Your task to perform on an android device: Open calendar and show me the second week of next month Image 0: 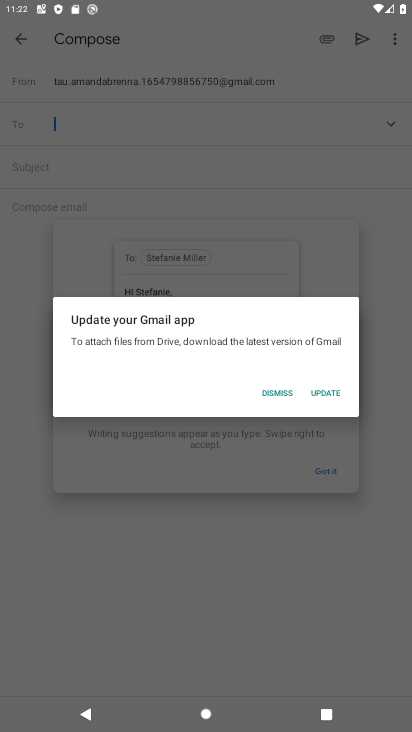
Step 0: press home button
Your task to perform on an android device: Open calendar and show me the second week of next month Image 1: 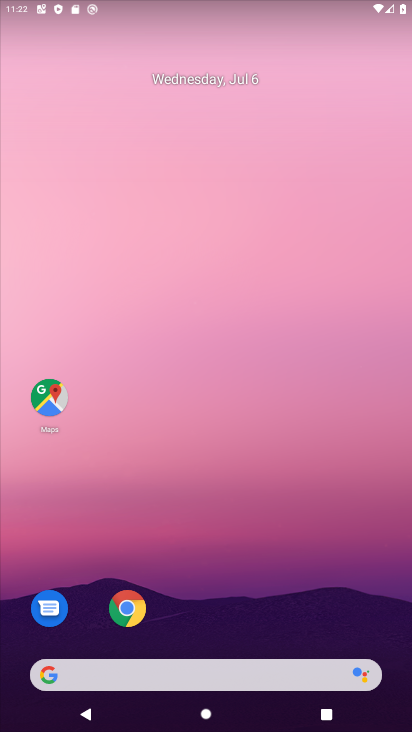
Step 1: drag from (335, 592) to (364, 91)
Your task to perform on an android device: Open calendar and show me the second week of next month Image 2: 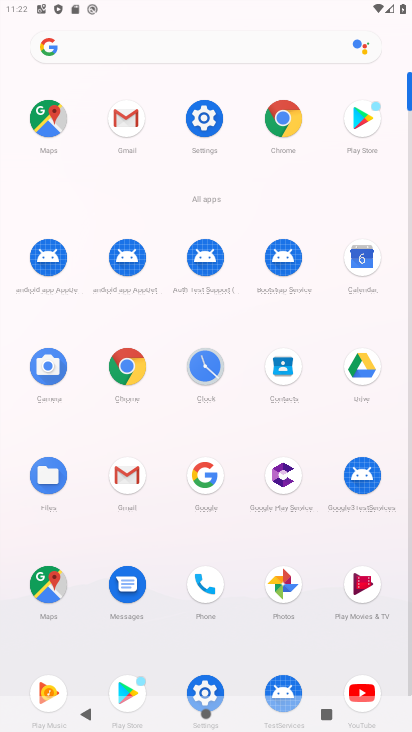
Step 2: click (367, 257)
Your task to perform on an android device: Open calendar and show me the second week of next month Image 3: 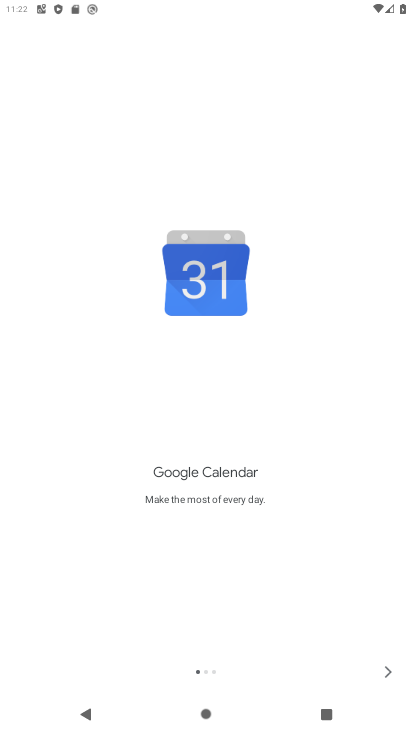
Step 3: click (388, 665)
Your task to perform on an android device: Open calendar and show me the second week of next month Image 4: 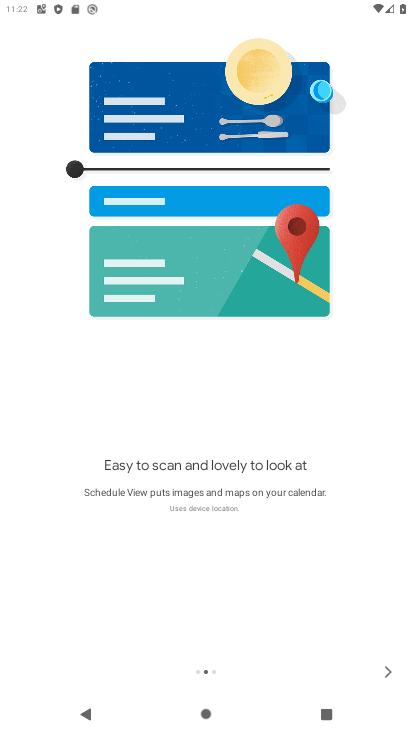
Step 4: click (388, 665)
Your task to perform on an android device: Open calendar and show me the second week of next month Image 5: 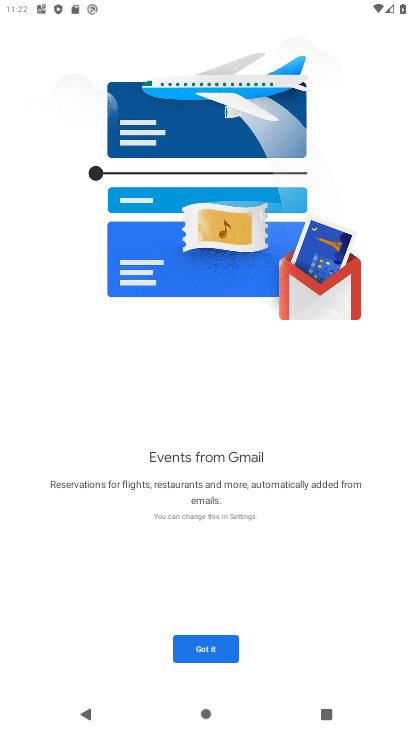
Step 5: click (212, 636)
Your task to perform on an android device: Open calendar and show me the second week of next month Image 6: 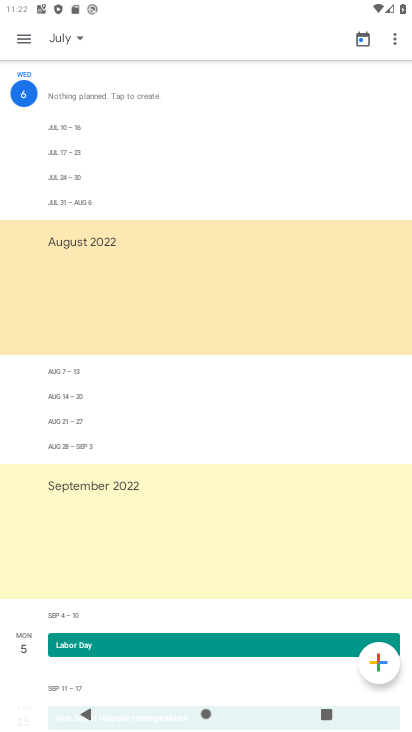
Step 6: click (71, 43)
Your task to perform on an android device: Open calendar and show me the second week of next month Image 7: 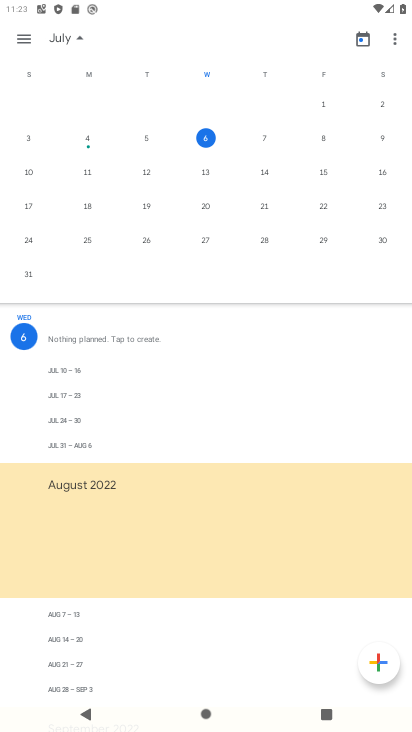
Step 7: drag from (378, 186) to (21, 134)
Your task to perform on an android device: Open calendar and show me the second week of next month Image 8: 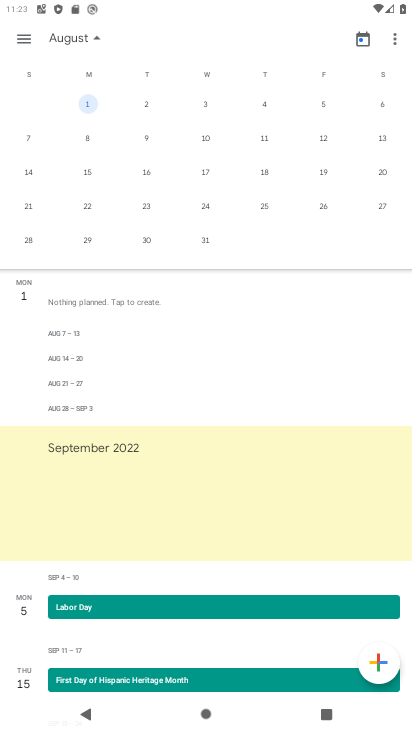
Step 8: click (258, 141)
Your task to perform on an android device: Open calendar and show me the second week of next month Image 9: 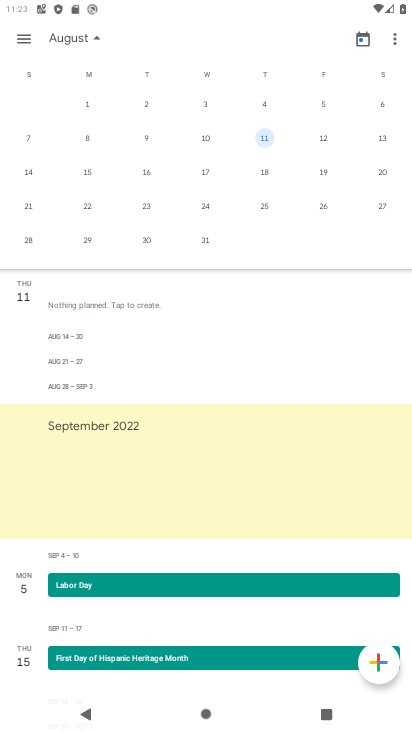
Step 9: task complete